Your task to perform on an android device: show emergency info Image 0: 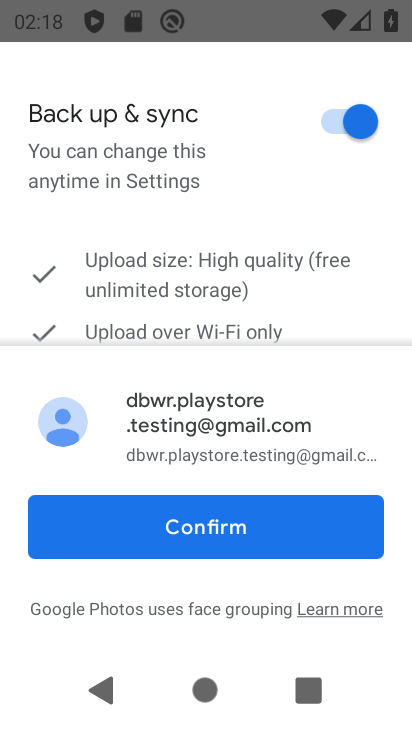
Step 0: press home button
Your task to perform on an android device: show emergency info Image 1: 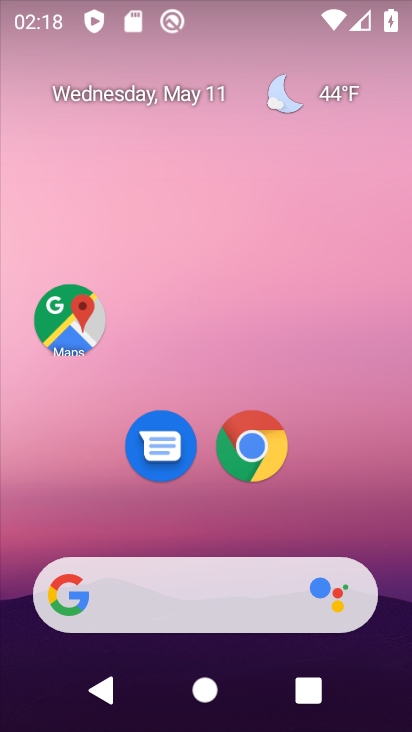
Step 1: drag from (327, 489) to (334, 200)
Your task to perform on an android device: show emergency info Image 2: 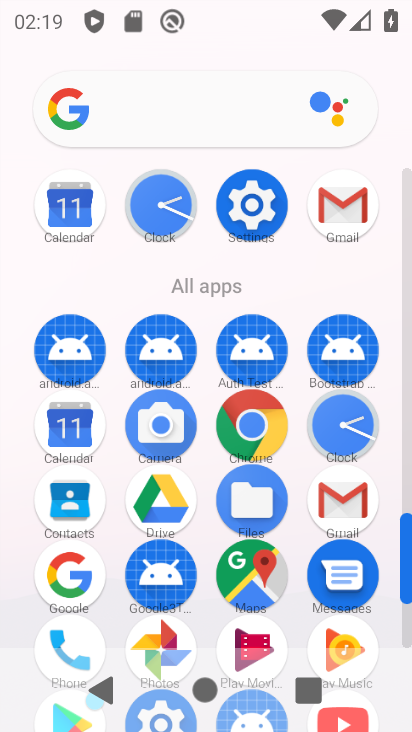
Step 2: click (264, 217)
Your task to perform on an android device: show emergency info Image 3: 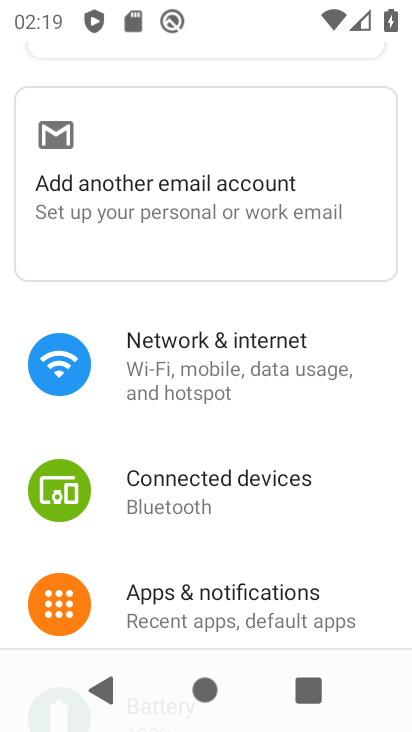
Step 3: drag from (343, 596) to (328, 126)
Your task to perform on an android device: show emergency info Image 4: 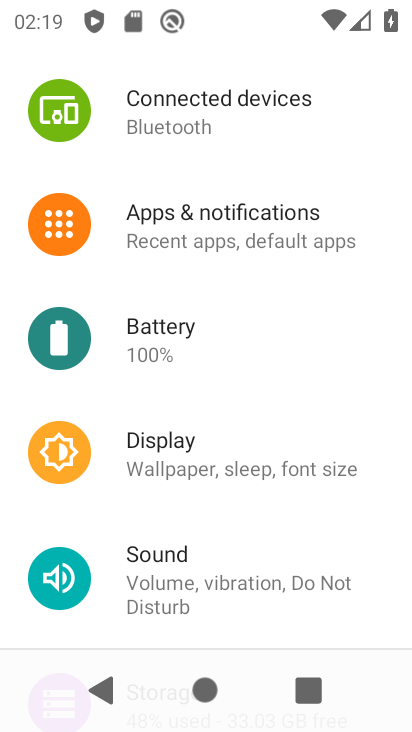
Step 4: drag from (301, 560) to (307, 62)
Your task to perform on an android device: show emergency info Image 5: 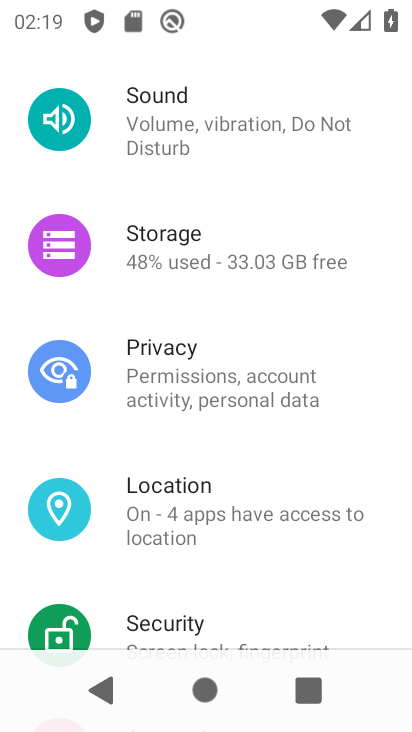
Step 5: drag from (272, 535) to (237, 61)
Your task to perform on an android device: show emergency info Image 6: 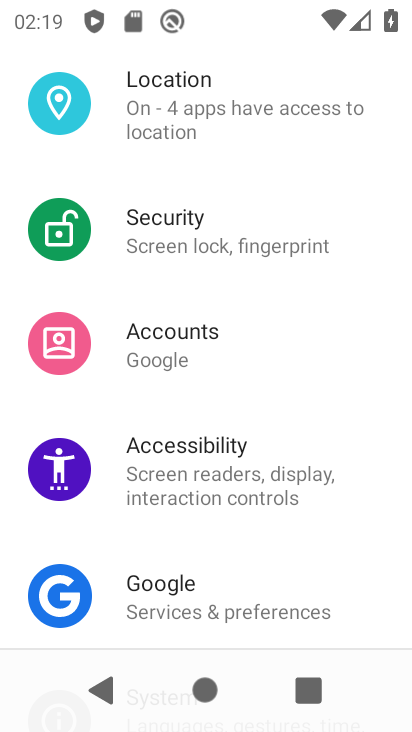
Step 6: drag from (190, 503) to (169, 167)
Your task to perform on an android device: show emergency info Image 7: 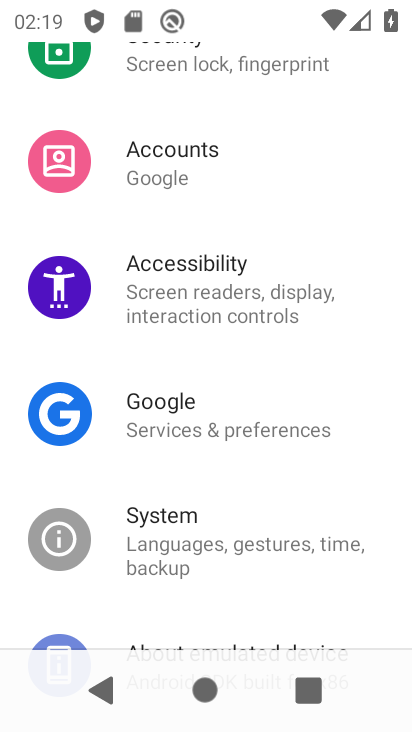
Step 7: drag from (185, 620) to (211, 444)
Your task to perform on an android device: show emergency info Image 8: 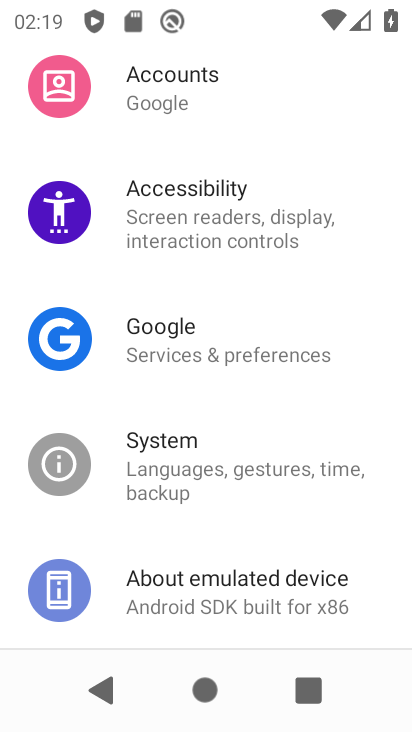
Step 8: click (204, 583)
Your task to perform on an android device: show emergency info Image 9: 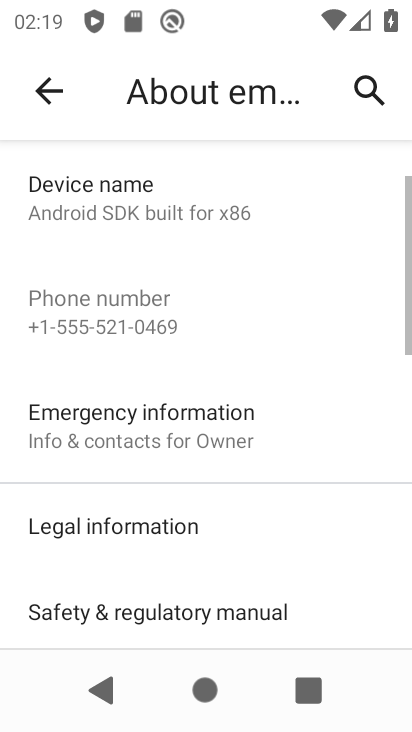
Step 9: click (147, 427)
Your task to perform on an android device: show emergency info Image 10: 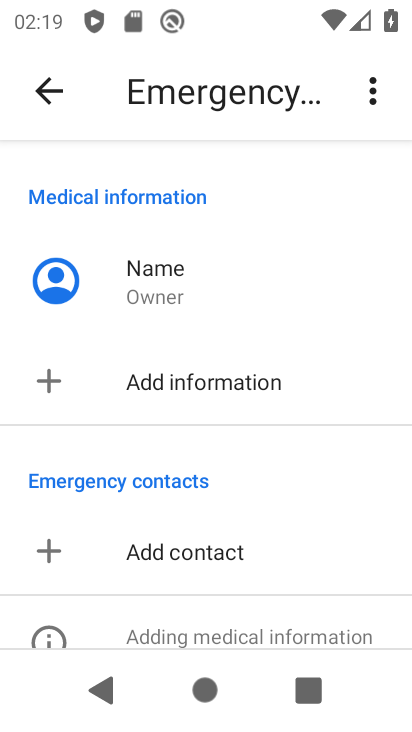
Step 10: task complete